Your task to perform on an android device: Is it going to rain today? Image 0: 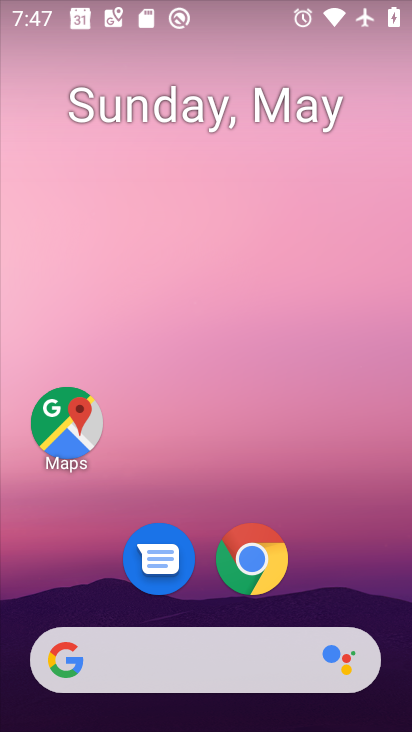
Step 0: press home button
Your task to perform on an android device: Is it going to rain today? Image 1: 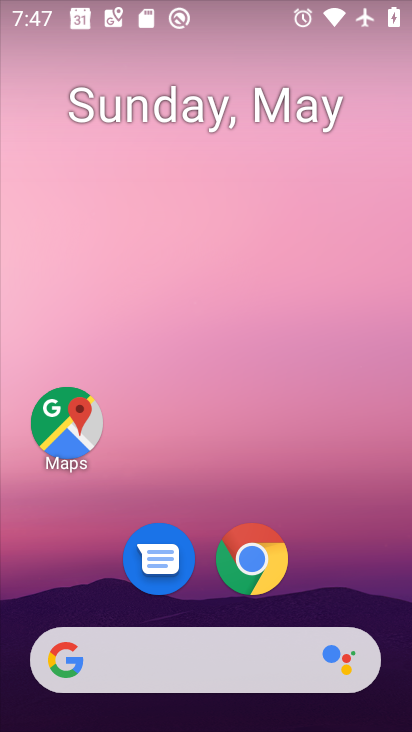
Step 1: click (72, 661)
Your task to perform on an android device: Is it going to rain today? Image 2: 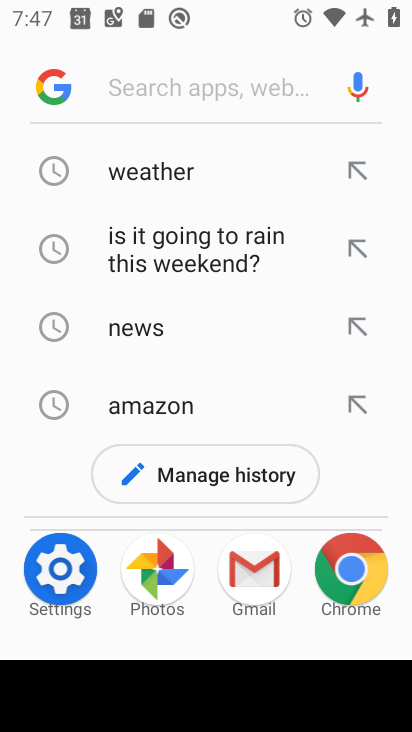
Step 2: click (163, 183)
Your task to perform on an android device: Is it going to rain today? Image 3: 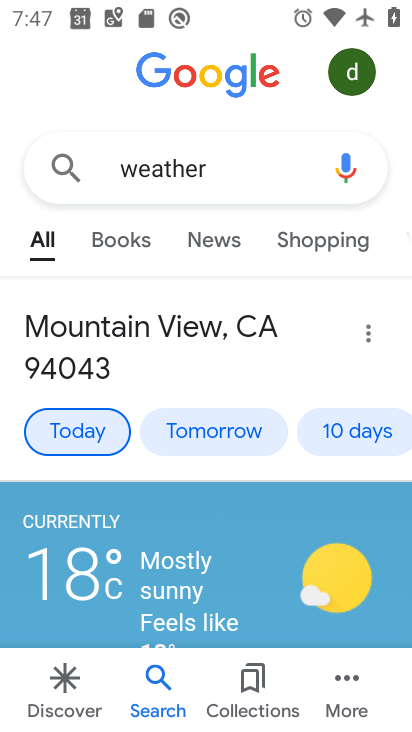
Step 3: task complete